Your task to perform on an android device: turn on improve location accuracy Image 0: 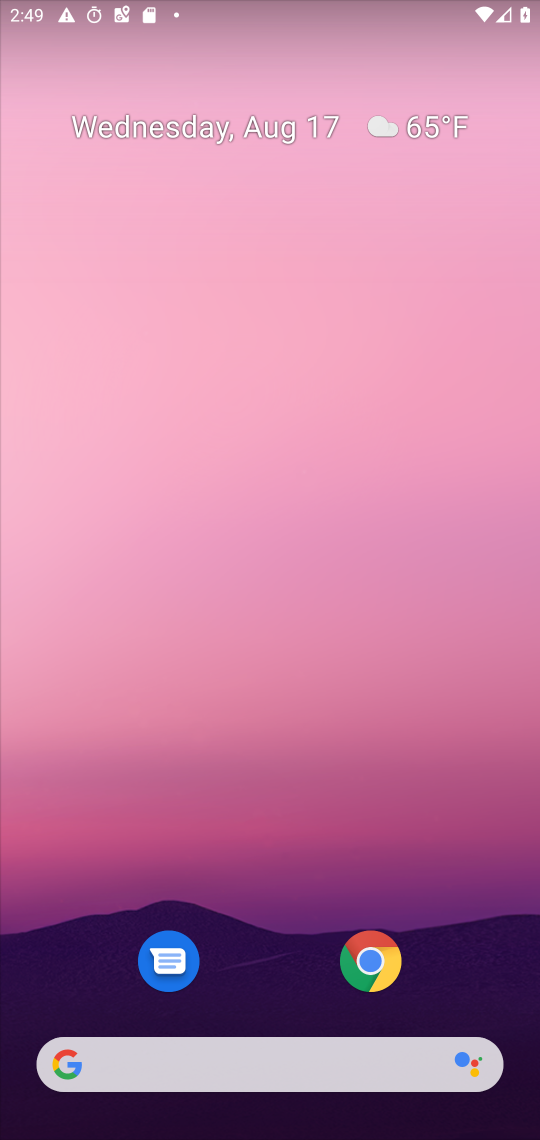
Step 0: drag from (353, 951) to (293, 227)
Your task to perform on an android device: turn on improve location accuracy Image 1: 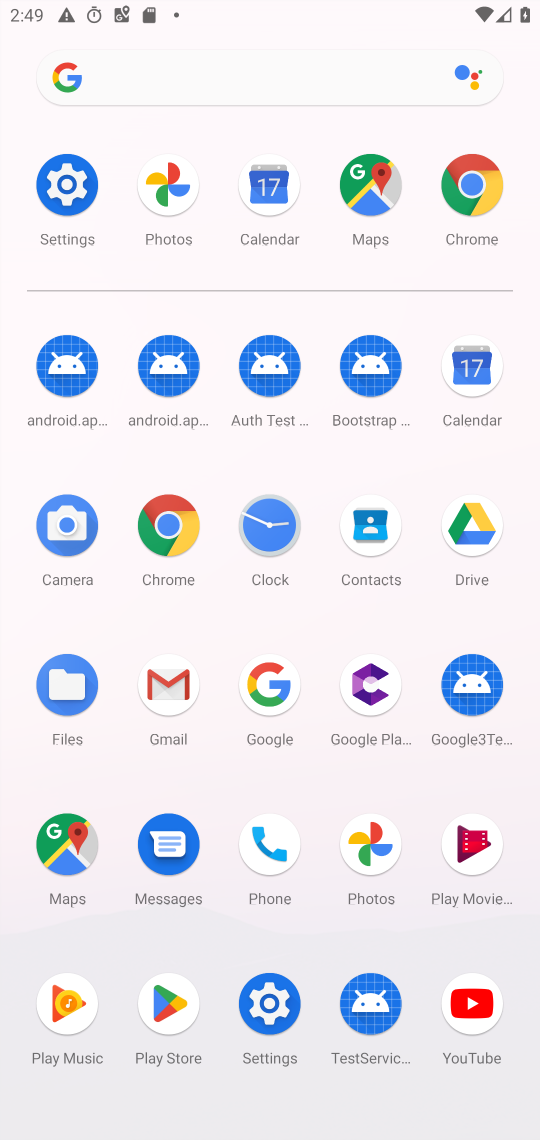
Step 1: click (76, 184)
Your task to perform on an android device: turn on improve location accuracy Image 2: 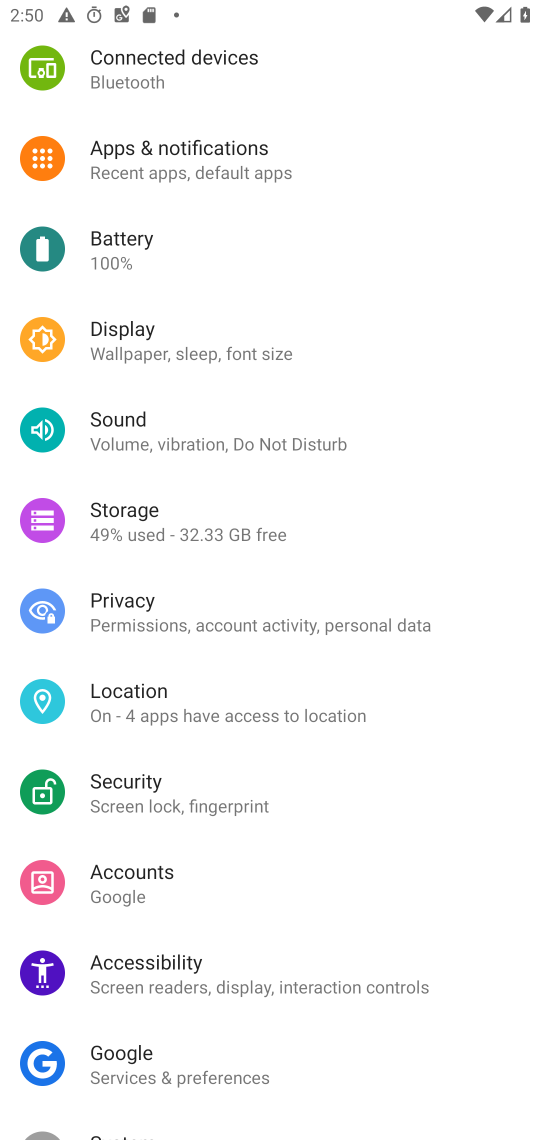
Step 2: click (229, 698)
Your task to perform on an android device: turn on improve location accuracy Image 3: 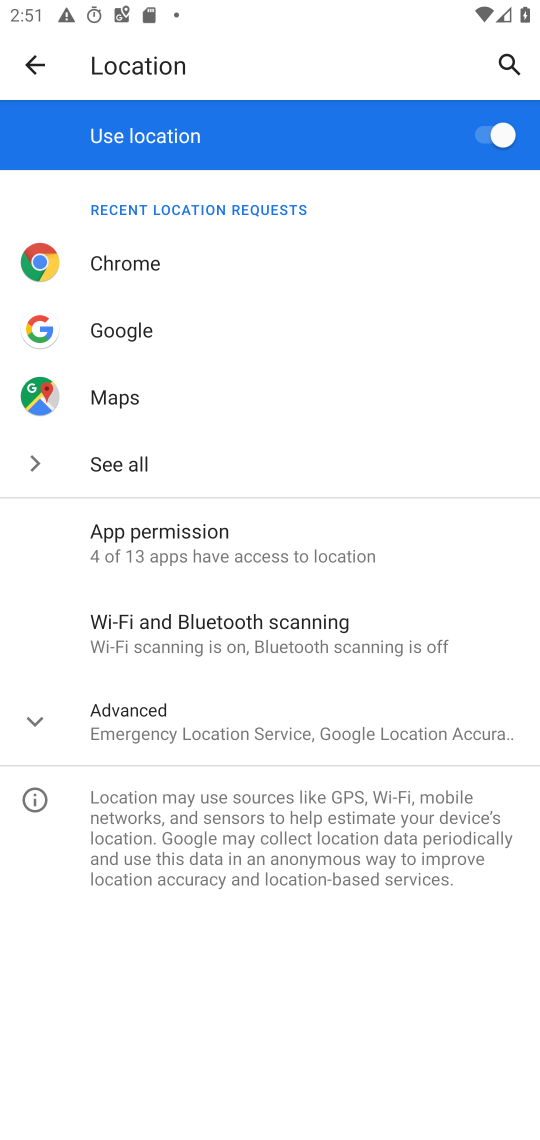
Step 3: click (235, 736)
Your task to perform on an android device: turn on improve location accuracy Image 4: 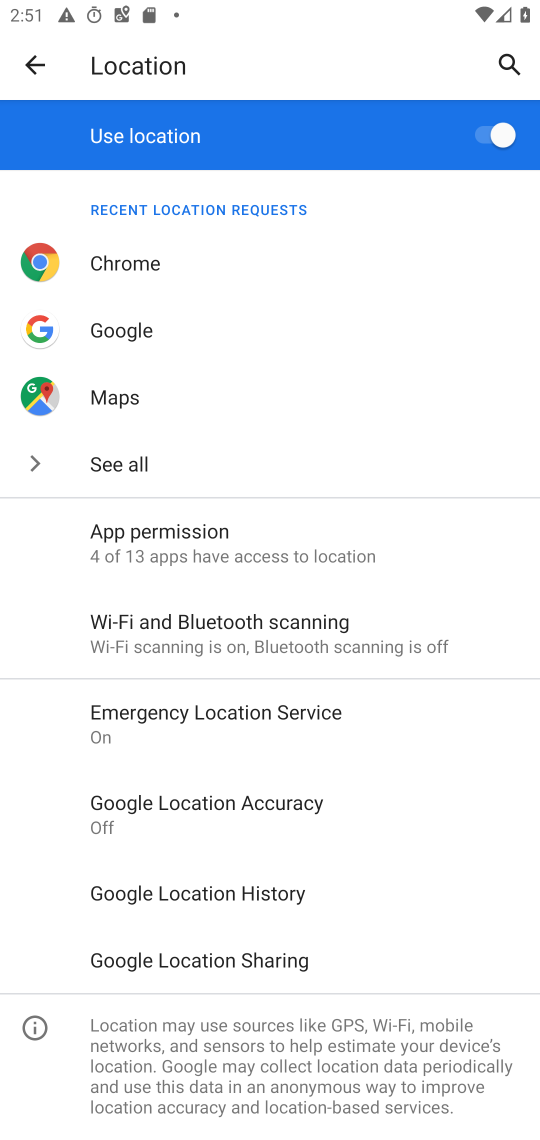
Step 4: click (285, 826)
Your task to perform on an android device: turn on improve location accuracy Image 5: 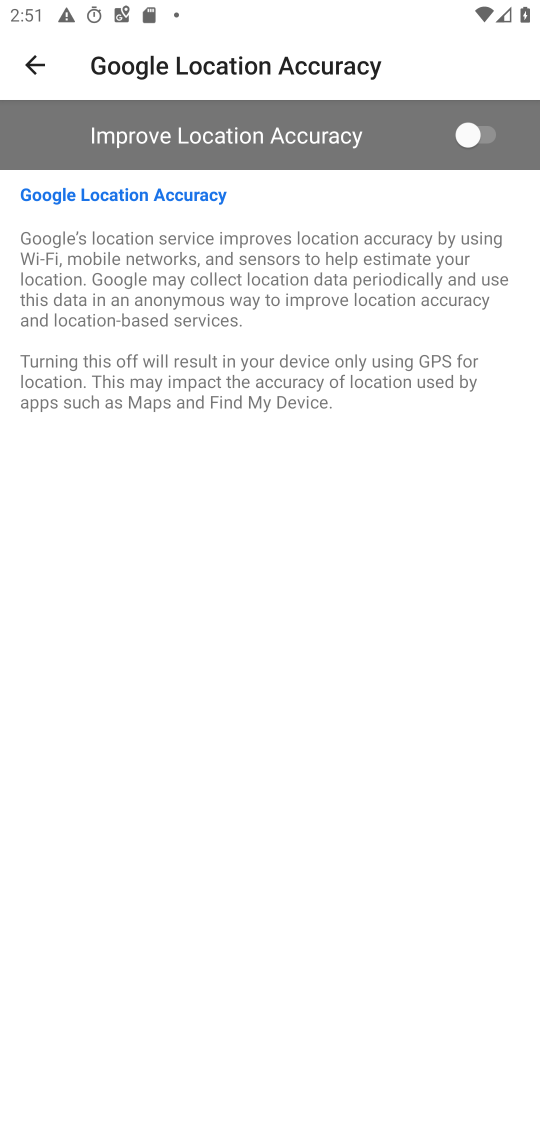
Step 5: click (505, 114)
Your task to perform on an android device: turn on improve location accuracy Image 6: 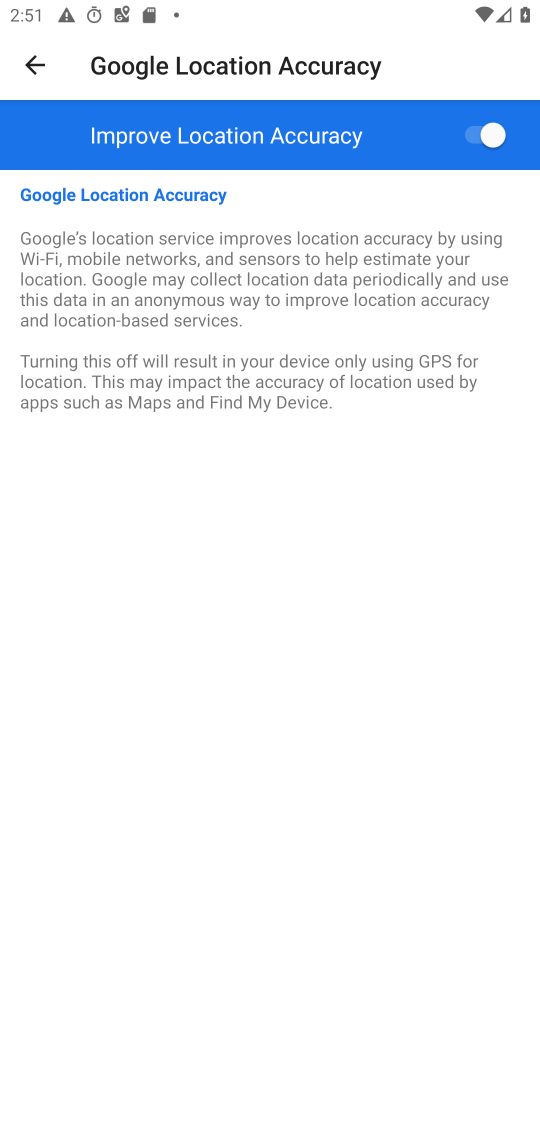
Step 6: task complete